Your task to perform on an android device: Turn on the flashlight Image 0: 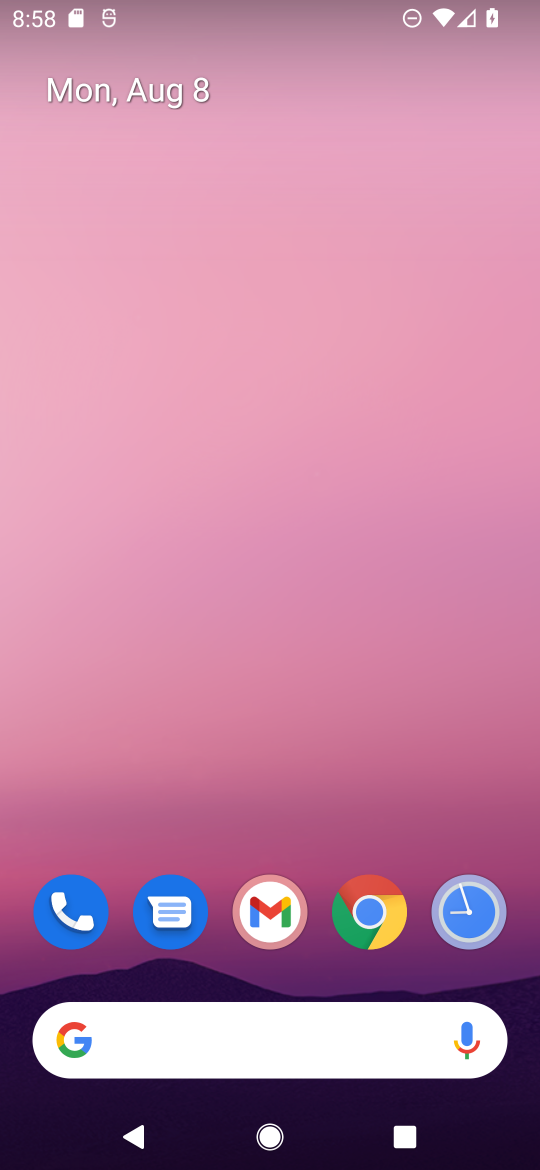
Step 0: drag from (276, 17) to (384, 1158)
Your task to perform on an android device: Turn on the flashlight Image 1: 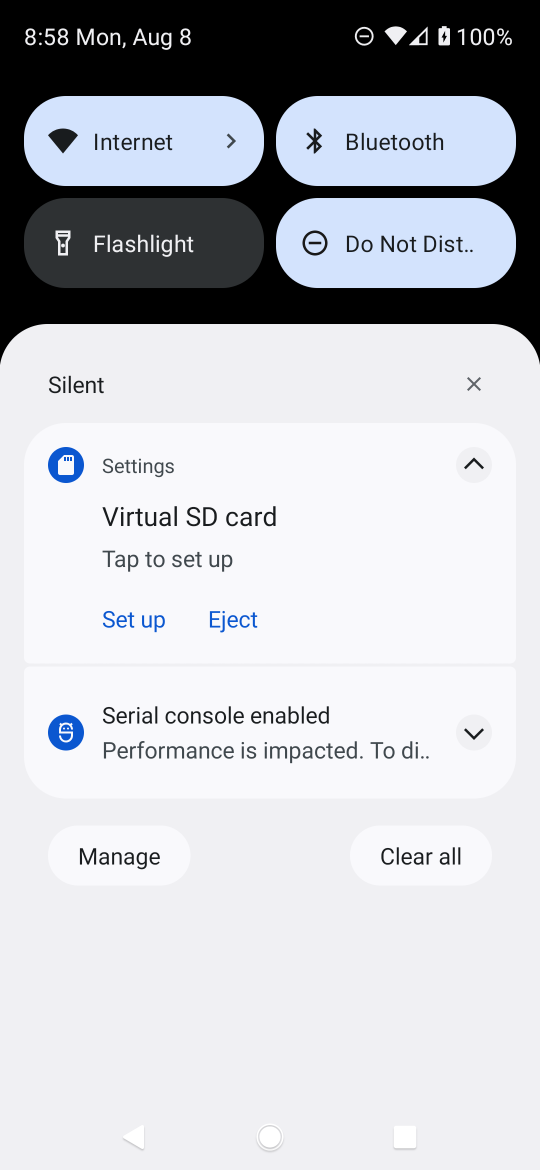
Step 1: click (112, 258)
Your task to perform on an android device: Turn on the flashlight Image 2: 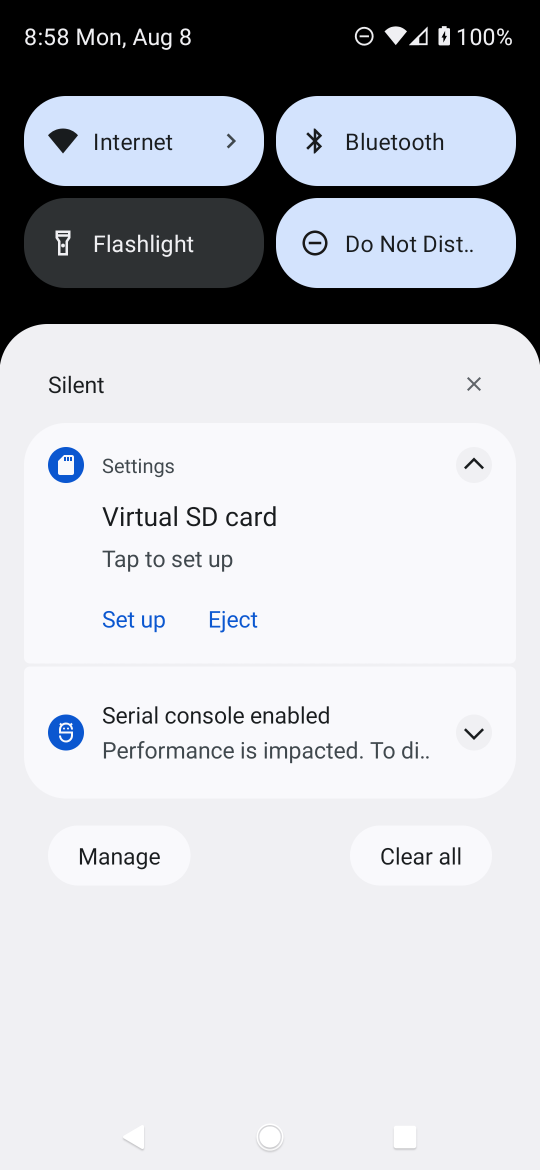
Step 2: click (60, 243)
Your task to perform on an android device: Turn on the flashlight Image 3: 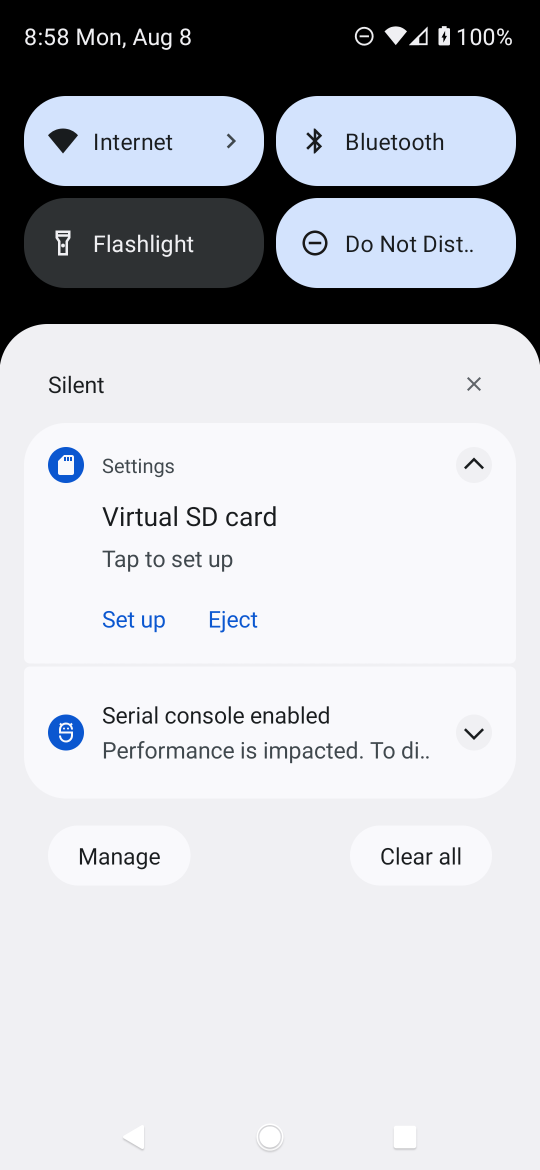
Step 3: task complete